Your task to perform on an android device: turn off airplane mode Image 0: 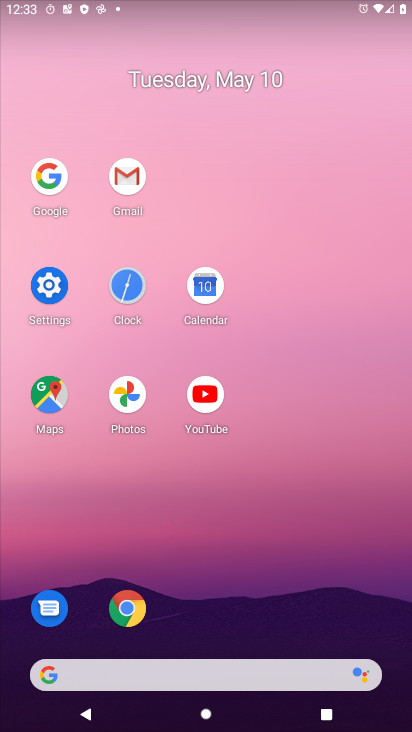
Step 0: click (52, 305)
Your task to perform on an android device: turn off airplane mode Image 1: 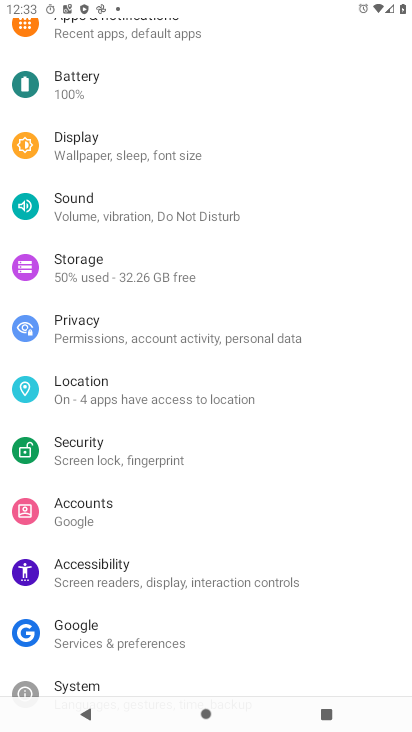
Step 1: drag from (341, 107) to (316, 582)
Your task to perform on an android device: turn off airplane mode Image 2: 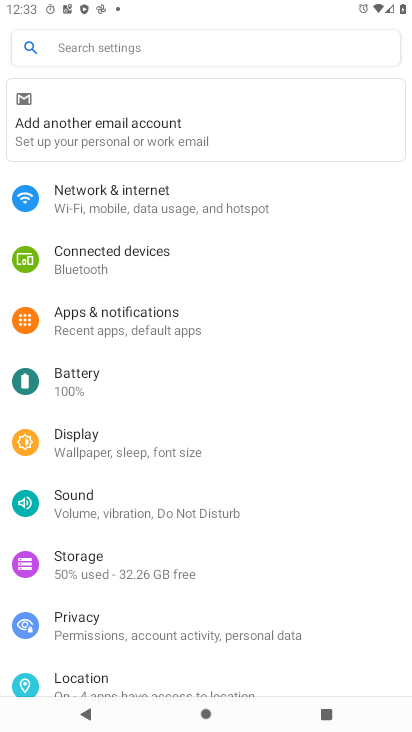
Step 2: click (130, 209)
Your task to perform on an android device: turn off airplane mode Image 3: 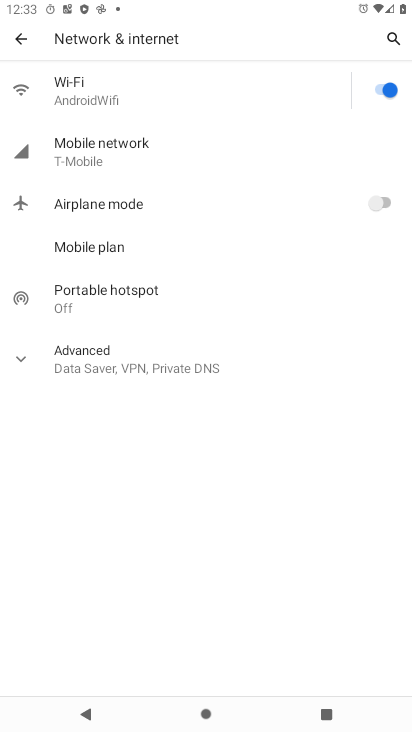
Step 3: task complete